Your task to perform on an android device: move an email to a new category in the gmail app Image 0: 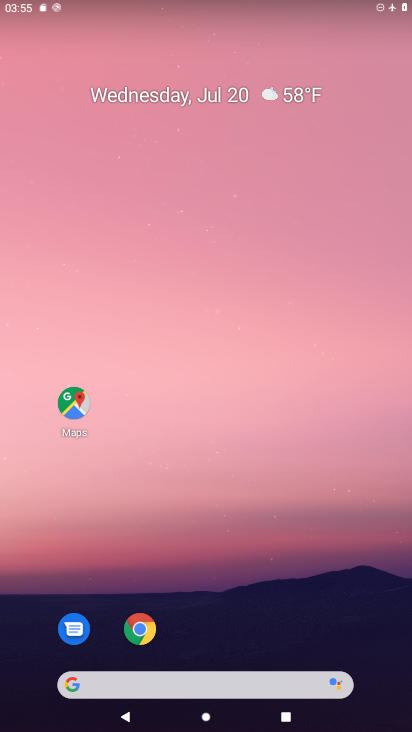
Step 0: drag from (235, 625) to (230, 171)
Your task to perform on an android device: move an email to a new category in the gmail app Image 1: 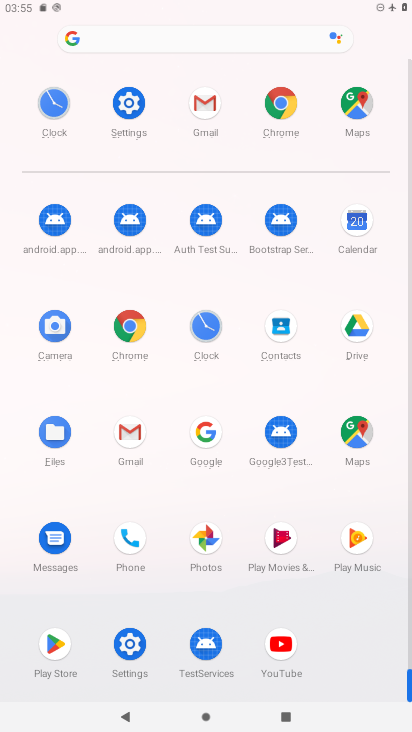
Step 1: click (125, 425)
Your task to perform on an android device: move an email to a new category in the gmail app Image 2: 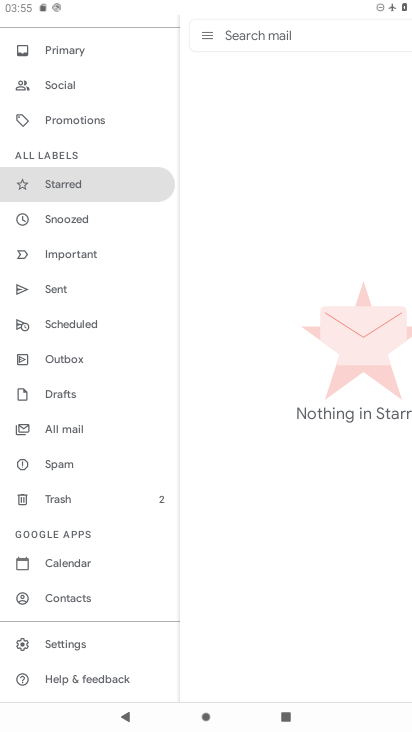
Step 2: task complete